Your task to perform on an android device: snooze an email in the gmail app Image 0: 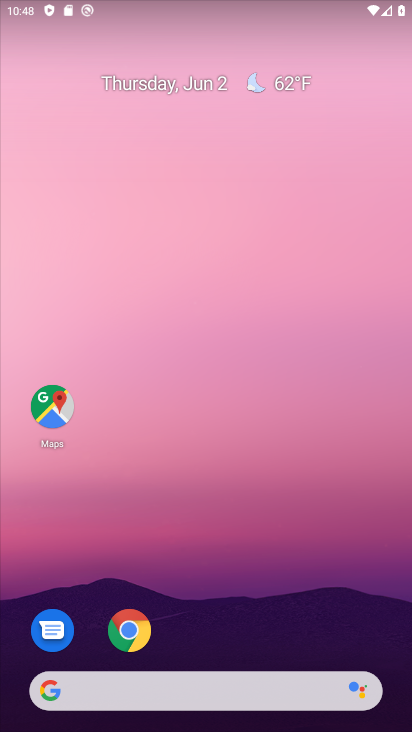
Step 0: press home button
Your task to perform on an android device: snooze an email in the gmail app Image 1: 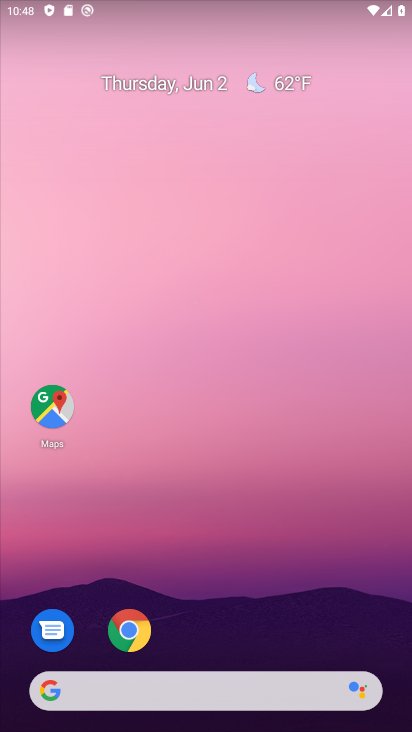
Step 1: drag from (178, 679) to (282, 34)
Your task to perform on an android device: snooze an email in the gmail app Image 2: 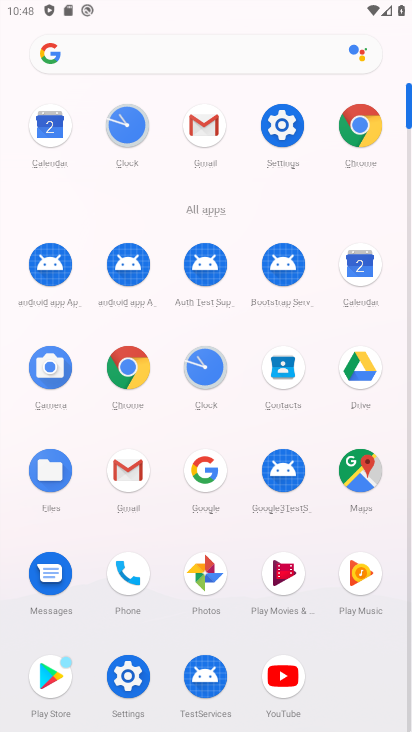
Step 2: click (197, 140)
Your task to perform on an android device: snooze an email in the gmail app Image 3: 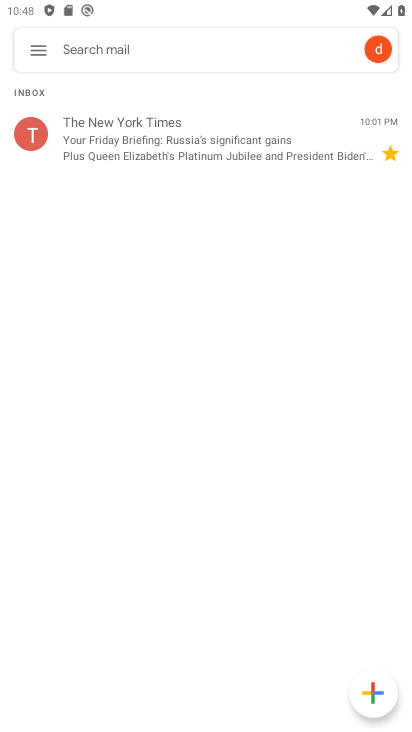
Step 3: click (38, 133)
Your task to perform on an android device: snooze an email in the gmail app Image 4: 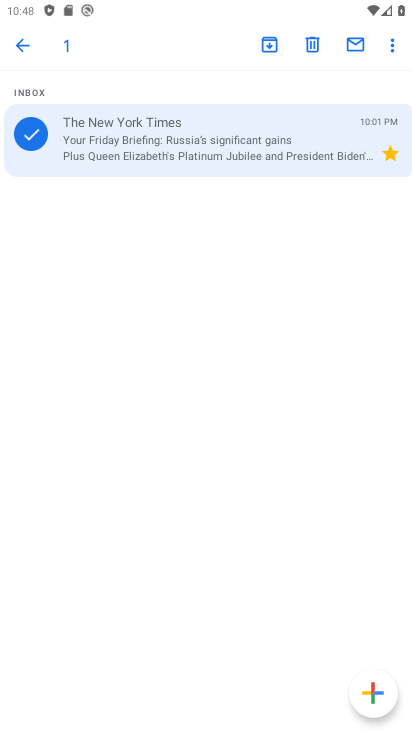
Step 4: click (393, 49)
Your task to perform on an android device: snooze an email in the gmail app Image 5: 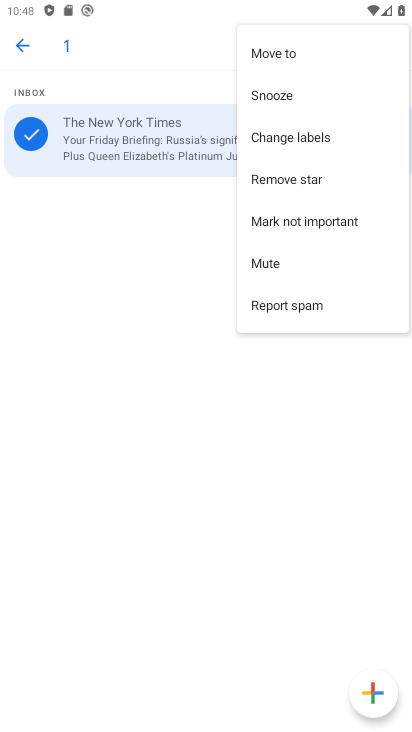
Step 5: click (268, 100)
Your task to perform on an android device: snooze an email in the gmail app Image 6: 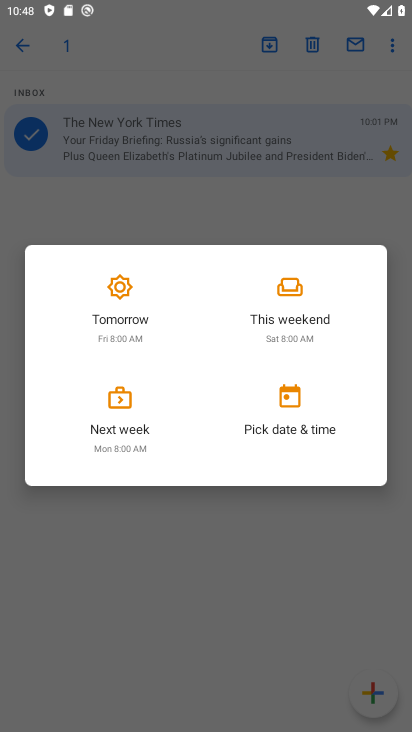
Step 6: click (103, 316)
Your task to perform on an android device: snooze an email in the gmail app Image 7: 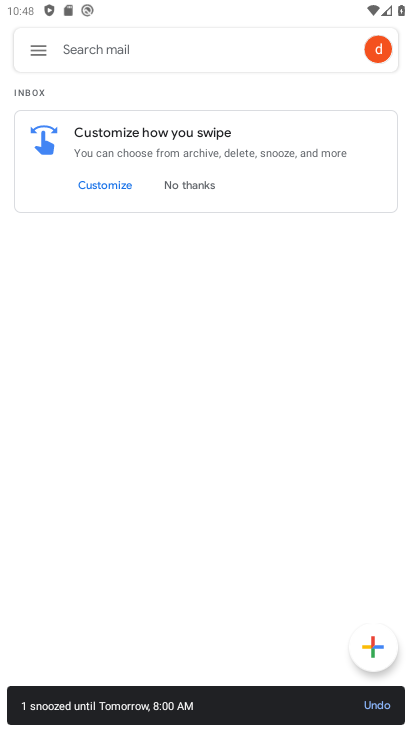
Step 7: task complete